Your task to perform on an android device: turn on notifications settings in the gmail app Image 0: 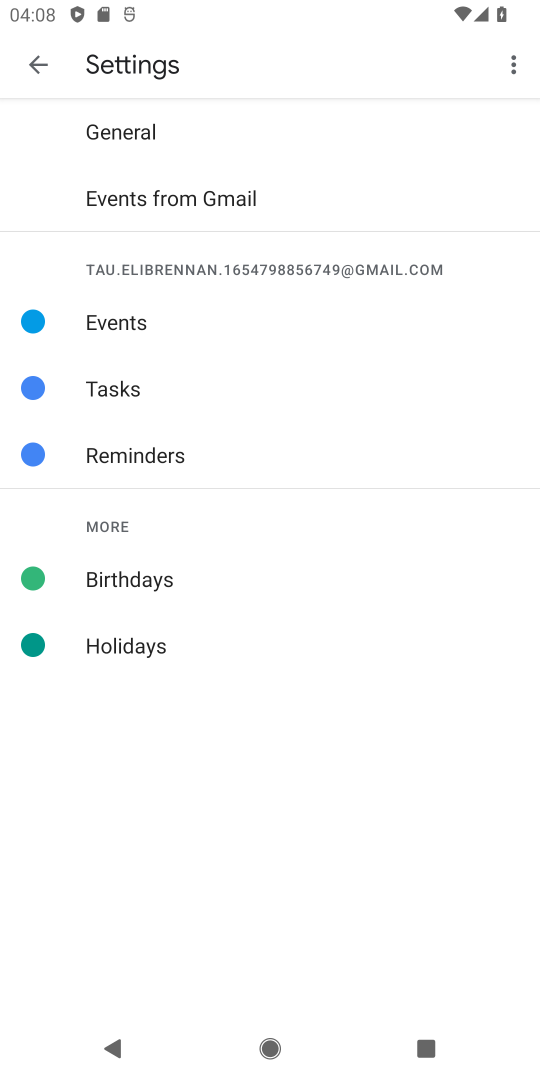
Step 0: press home button
Your task to perform on an android device: turn on notifications settings in the gmail app Image 1: 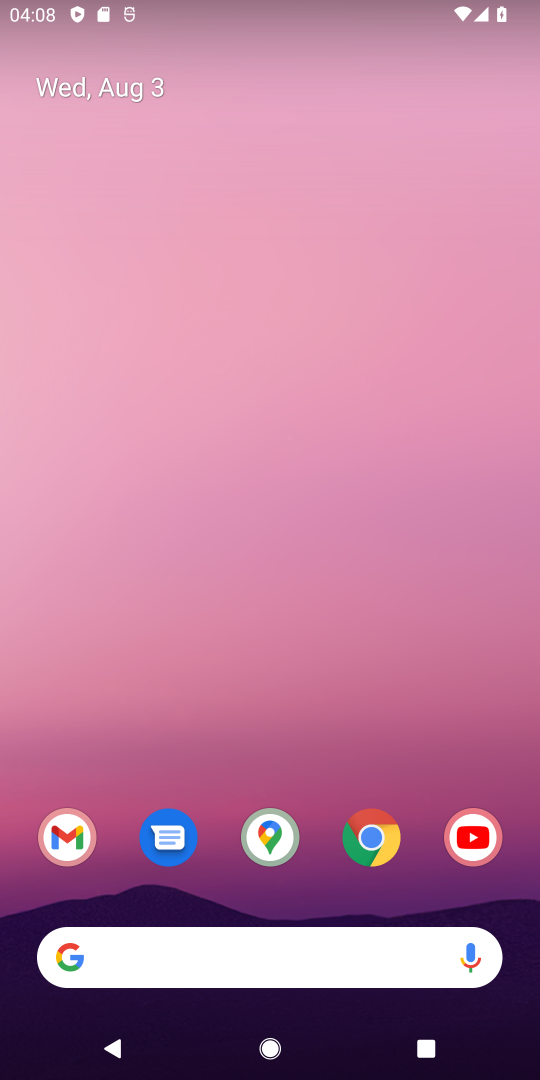
Step 1: click (66, 839)
Your task to perform on an android device: turn on notifications settings in the gmail app Image 2: 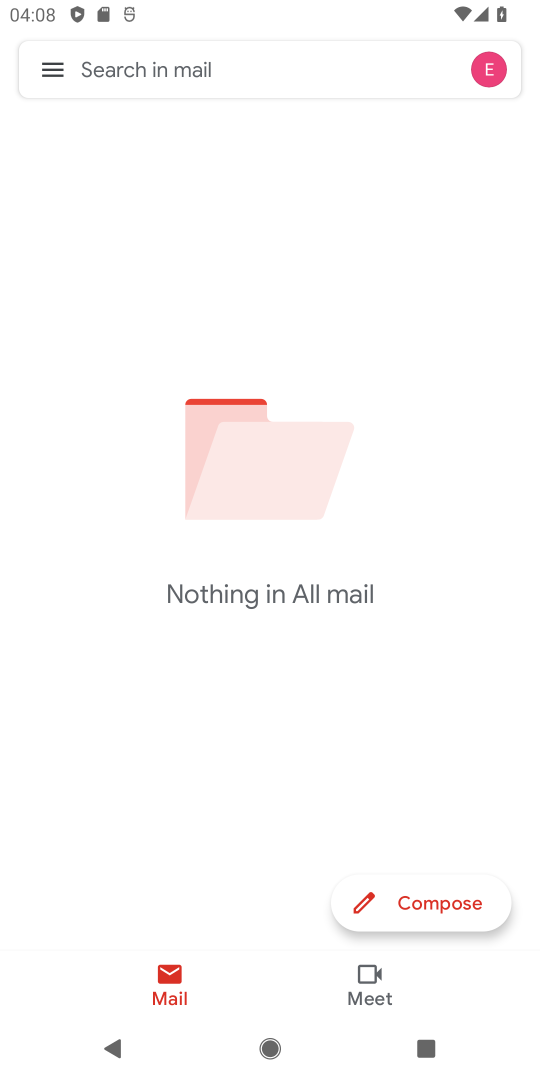
Step 2: click (48, 67)
Your task to perform on an android device: turn on notifications settings in the gmail app Image 3: 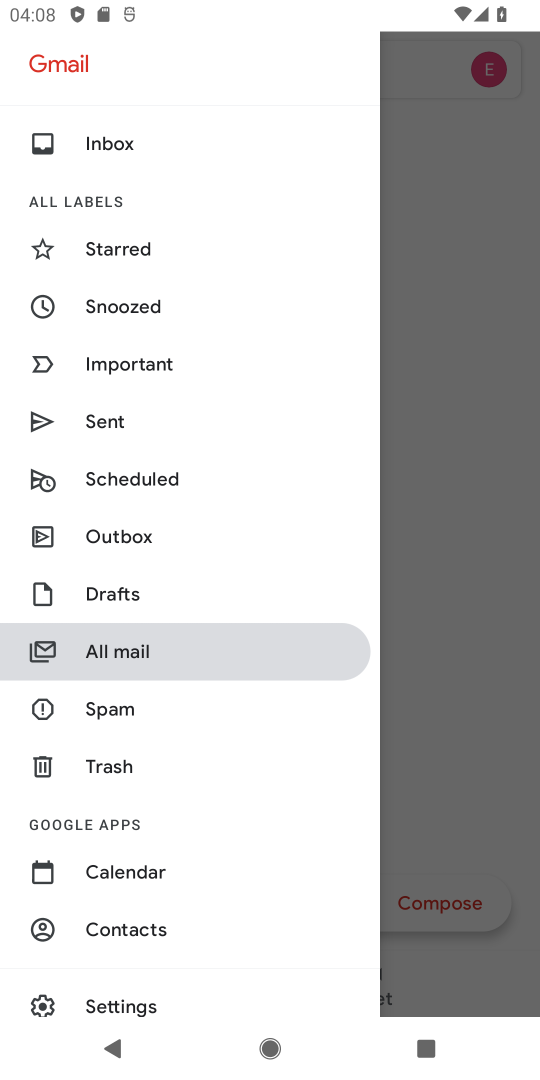
Step 3: drag from (205, 975) to (224, 490)
Your task to perform on an android device: turn on notifications settings in the gmail app Image 4: 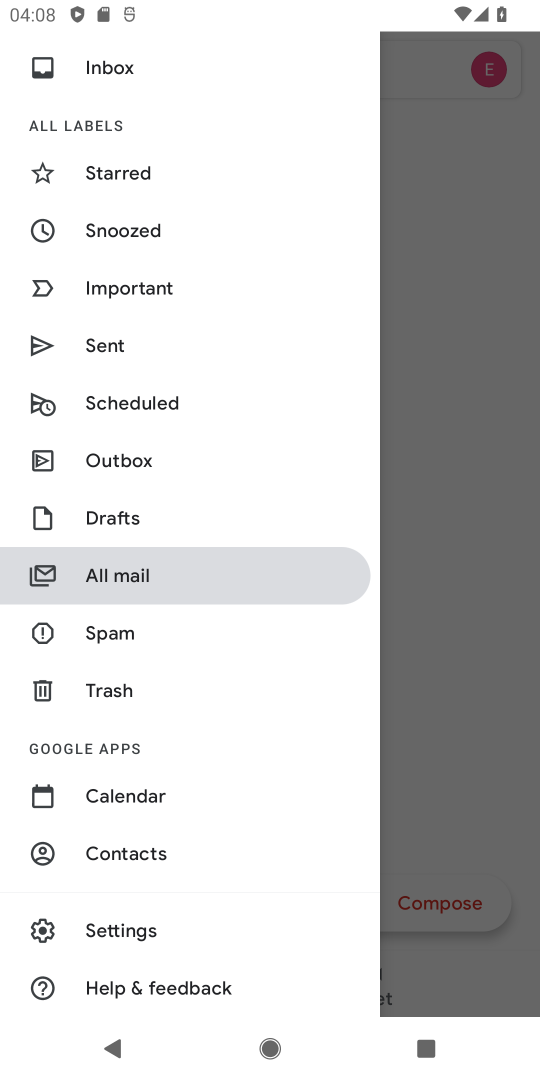
Step 4: click (94, 926)
Your task to perform on an android device: turn on notifications settings in the gmail app Image 5: 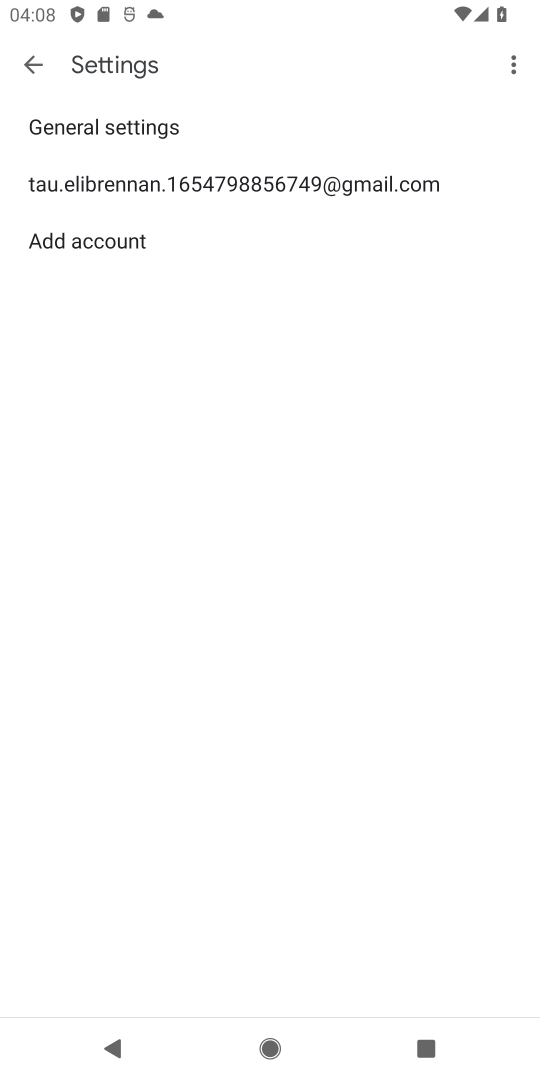
Step 5: click (195, 186)
Your task to perform on an android device: turn on notifications settings in the gmail app Image 6: 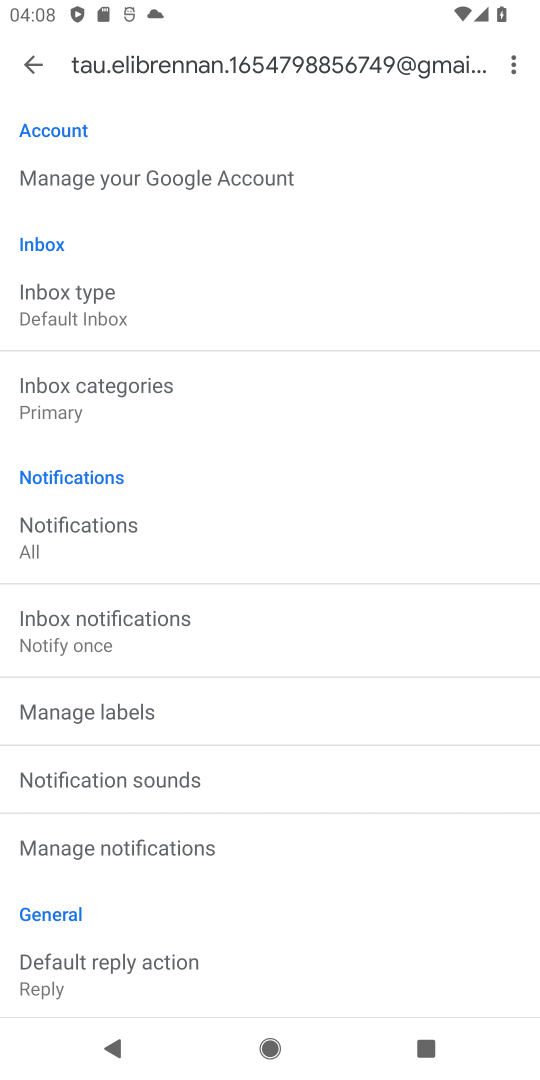
Step 6: click (138, 835)
Your task to perform on an android device: turn on notifications settings in the gmail app Image 7: 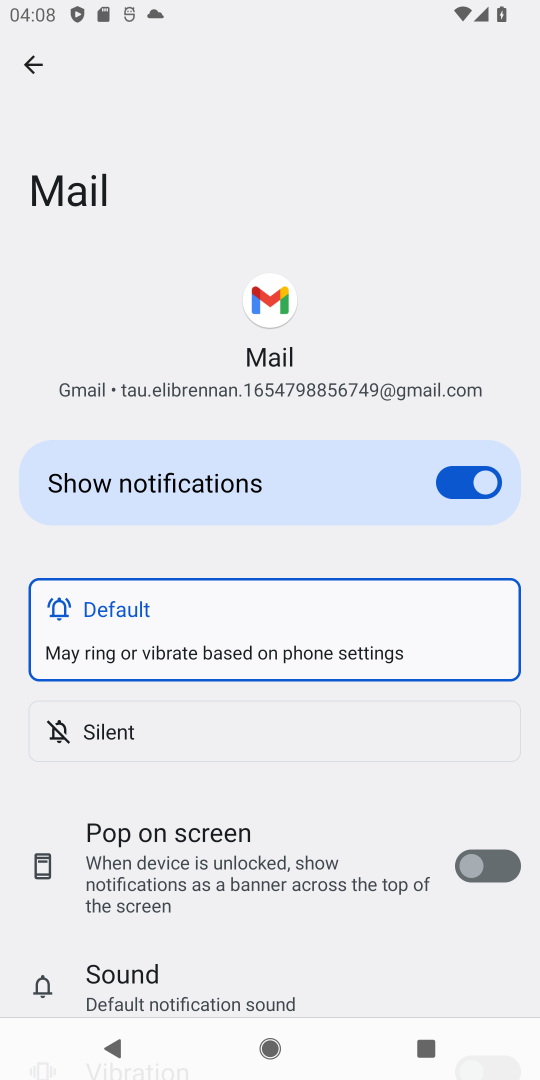
Step 7: task complete